Your task to perform on an android device: Is it going to rain this weekend? Image 0: 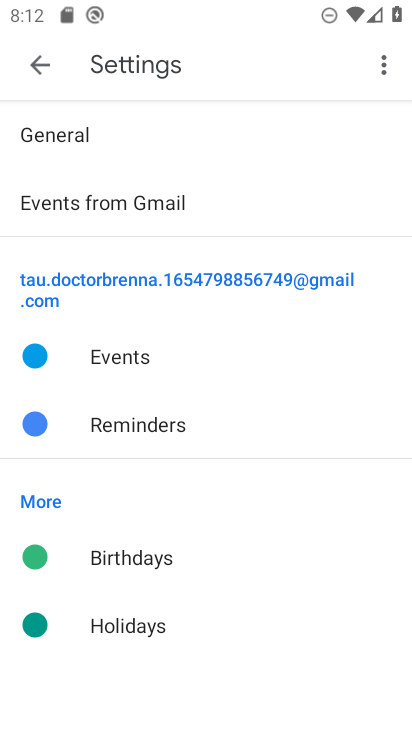
Step 0: press home button
Your task to perform on an android device: Is it going to rain this weekend? Image 1: 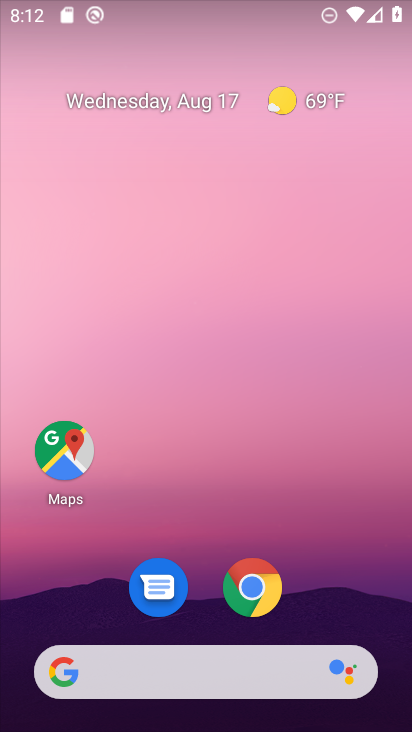
Step 1: click (167, 680)
Your task to perform on an android device: Is it going to rain this weekend? Image 2: 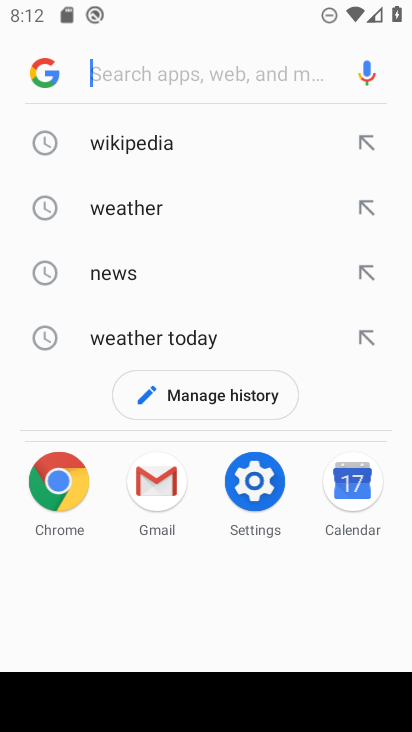
Step 2: type "Is it going to rain this weekend?"
Your task to perform on an android device: Is it going to rain this weekend? Image 3: 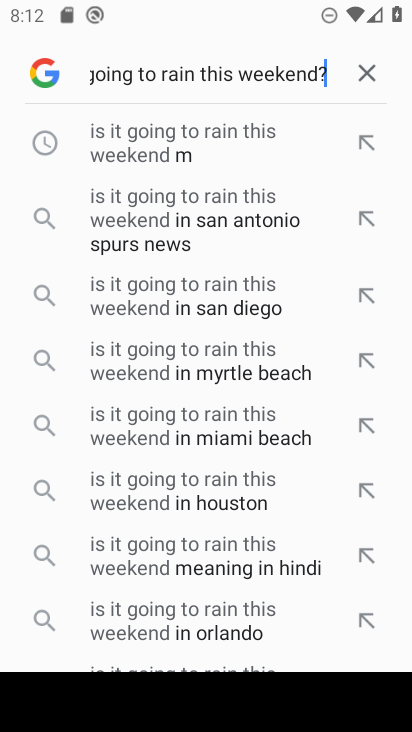
Step 3: type ""
Your task to perform on an android device: Is it going to rain this weekend? Image 4: 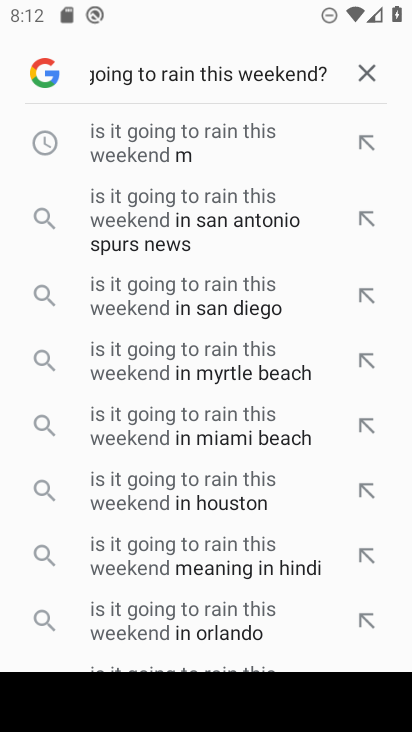
Step 4: type ""
Your task to perform on an android device: Is it going to rain this weekend? Image 5: 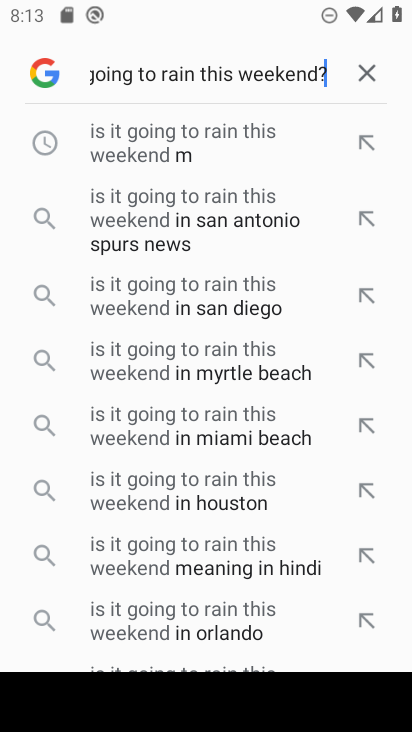
Step 5: task complete